Your task to perform on an android device: Open network settings Image 0: 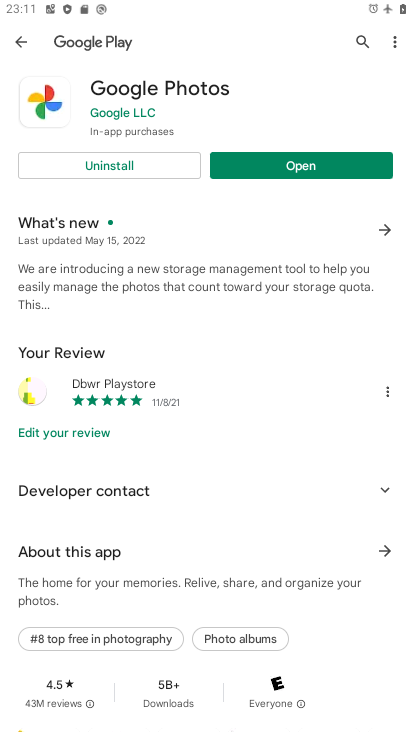
Step 0: press home button
Your task to perform on an android device: Open network settings Image 1: 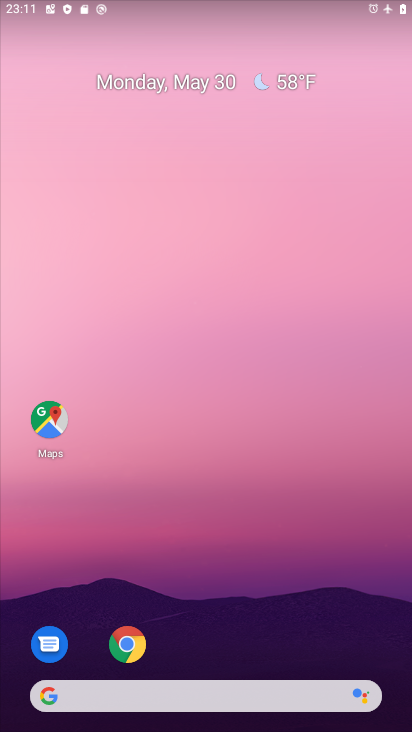
Step 1: drag from (367, 638) to (320, 102)
Your task to perform on an android device: Open network settings Image 2: 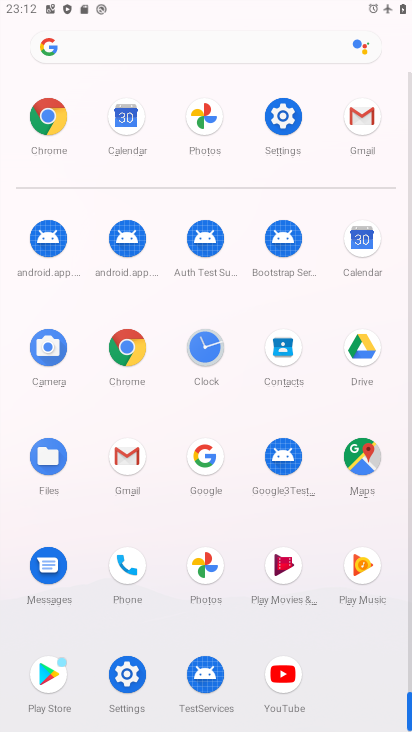
Step 2: click (127, 676)
Your task to perform on an android device: Open network settings Image 3: 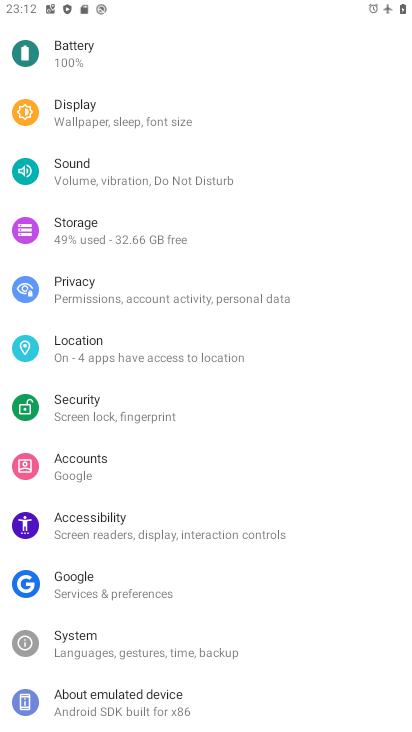
Step 3: drag from (334, 90) to (316, 438)
Your task to perform on an android device: Open network settings Image 4: 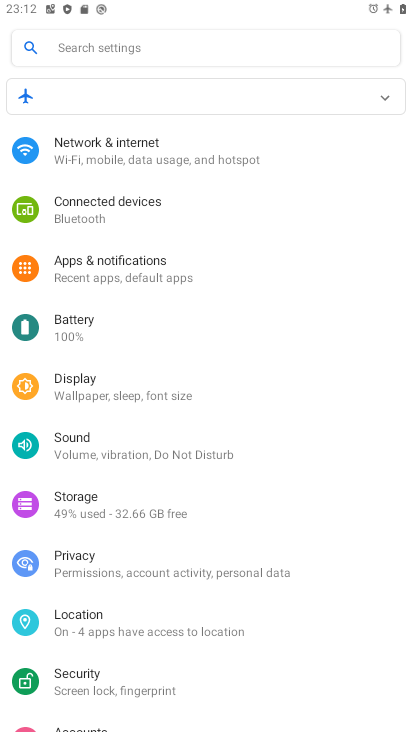
Step 4: click (84, 146)
Your task to perform on an android device: Open network settings Image 5: 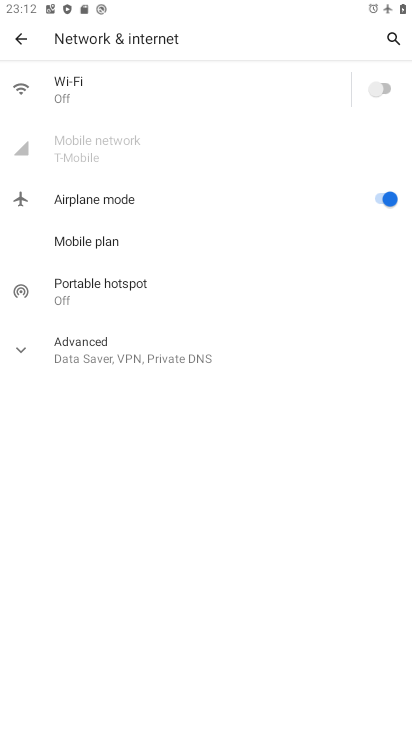
Step 5: task complete